Your task to perform on an android device: Open Youtube and go to "Your channel" Image 0: 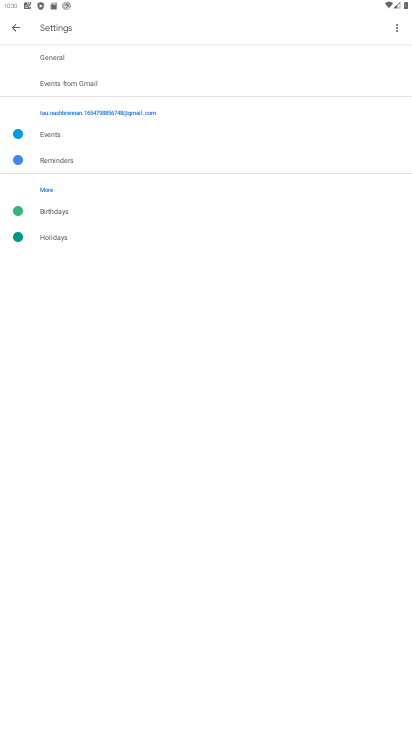
Step 0: press home button
Your task to perform on an android device: Open Youtube and go to "Your channel" Image 1: 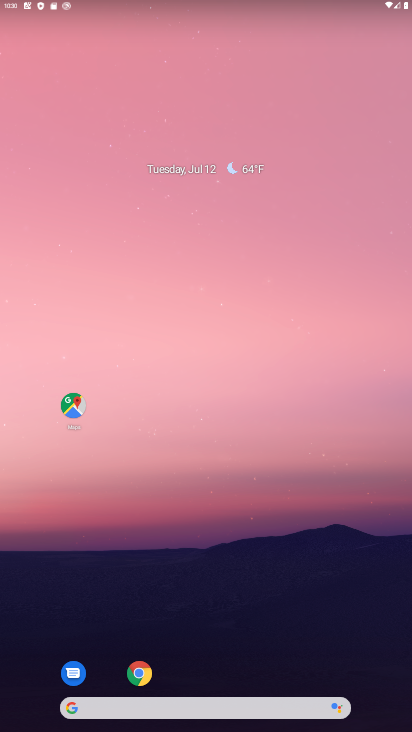
Step 1: drag from (300, 607) to (284, 110)
Your task to perform on an android device: Open Youtube and go to "Your channel" Image 2: 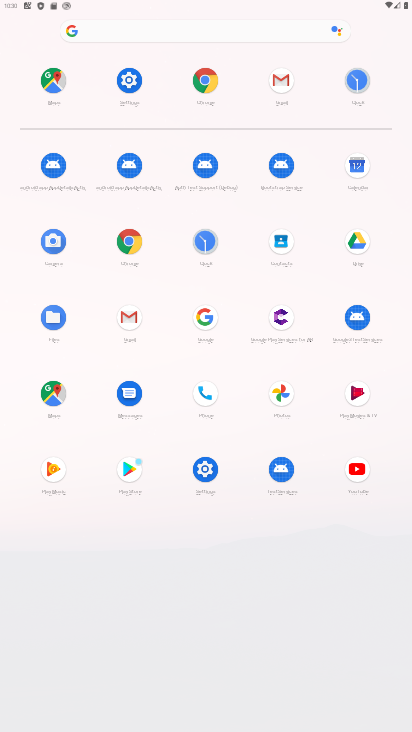
Step 2: click (361, 471)
Your task to perform on an android device: Open Youtube and go to "Your channel" Image 3: 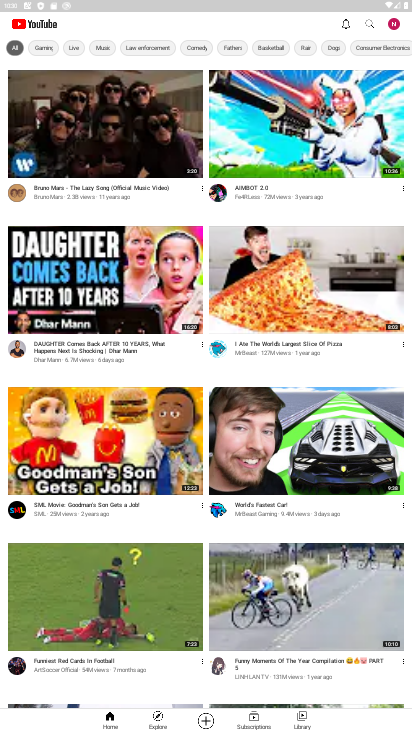
Step 3: click (397, 20)
Your task to perform on an android device: Open Youtube and go to "Your channel" Image 4: 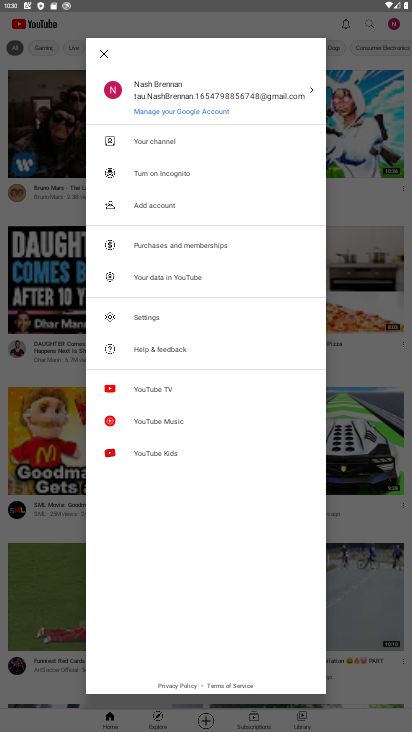
Step 4: click (191, 137)
Your task to perform on an android device: Open Youtube and go to "Your channel" Image 5: 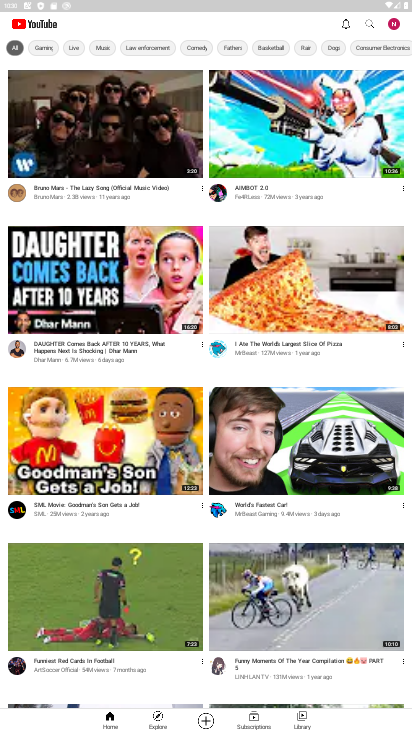
Step 5: click (397, 25)
Your task to perform on an android device: Open Youtube and go to "Your channel" Image 6: 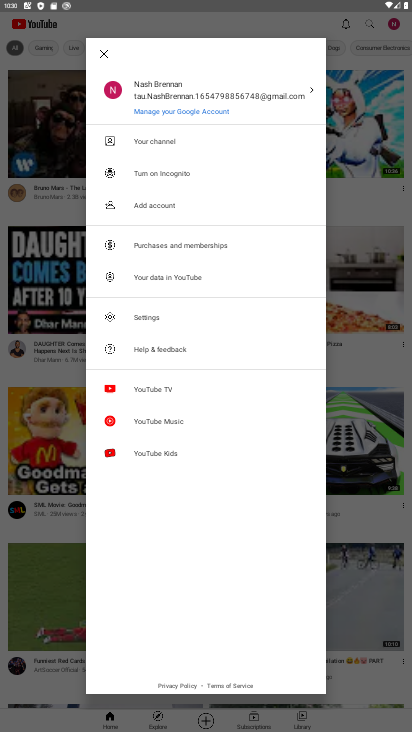
Step 6: click (146, 138)
Your task to perform on an android device: Open Youtube and go to "Your channel" Image 7: 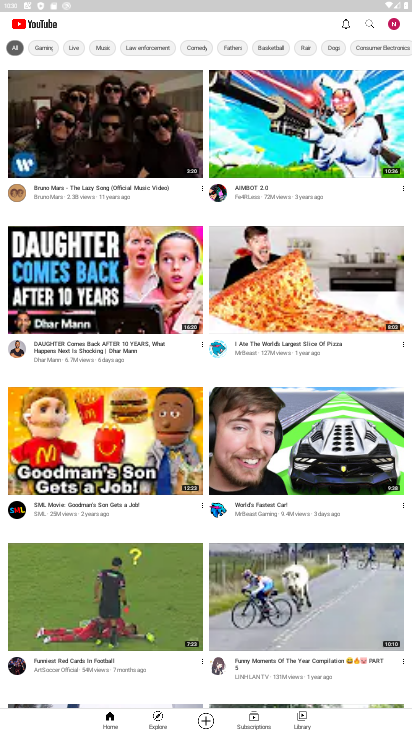
Step 7: task complete